Your task to perform on an android device: change the clock display to show seconds Image 0: 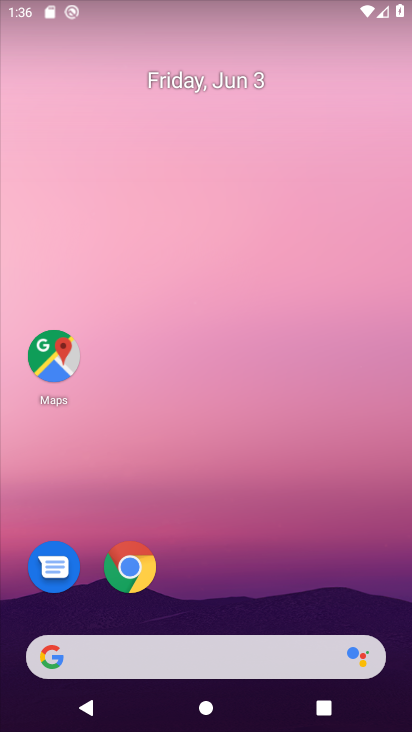
Step 0: drag from (227, 576) to (202, 222)
Your task to perform on an android device: change the clock display to show seconds Image 1: 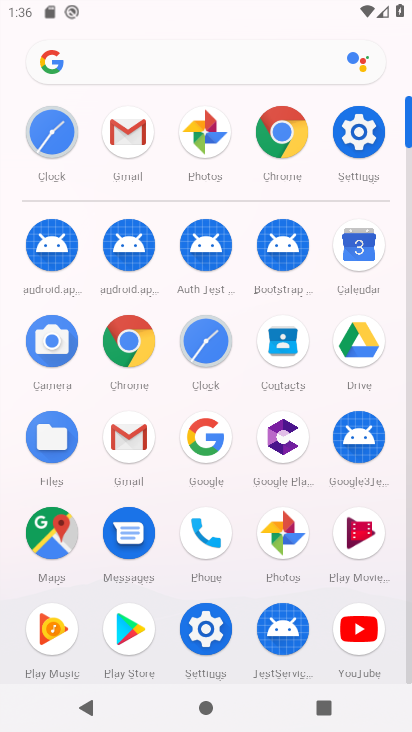
Step 1: click (203, 337)
Your task to perform on an android device: change the clock display to show seconds Image 2: 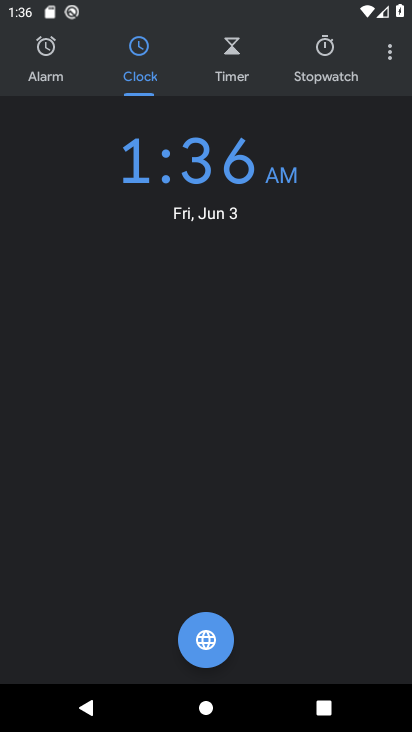
Step 2: click (385, 57)
Your task to perform on an android device: change the clock display to show seconds Image 3: 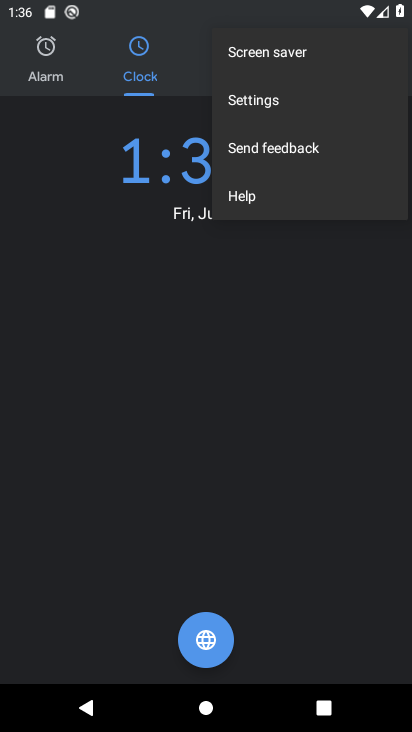
Step 3: click (279, 99)
Your task to perform on an android device: change the clock display to show seconds Image 4: 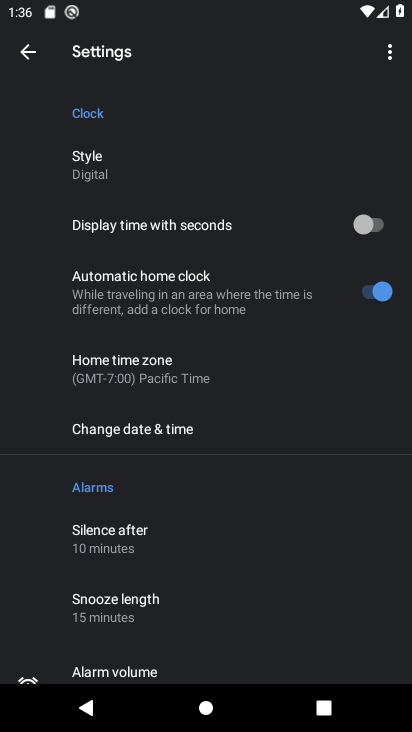
Step 4: click (364, 226)
Your task to perform on an android device: change the clock display to show seconds Image 5: 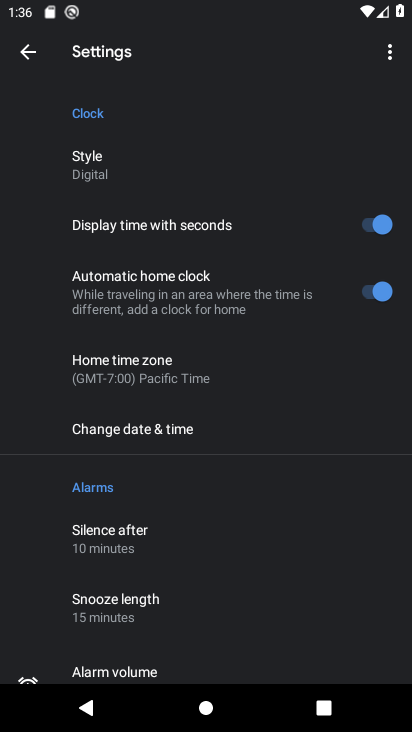
Step 5: task complete